Your task to perform on an android device: Is it going to rain today? Image 0: 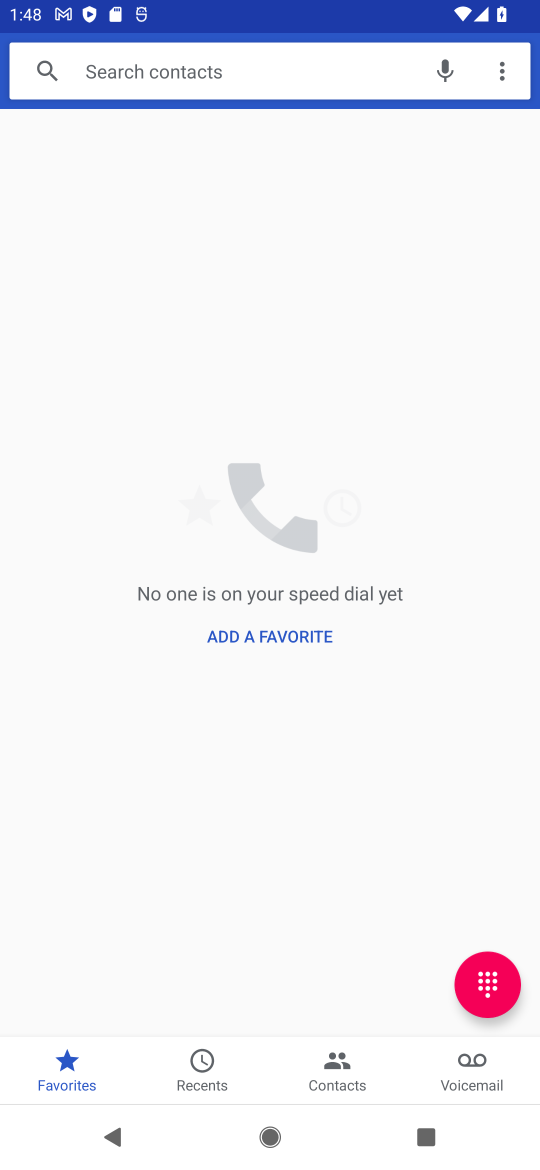
Step 0: press home button
Your task to perform on an android device: Is it going to rain today? Image 1: 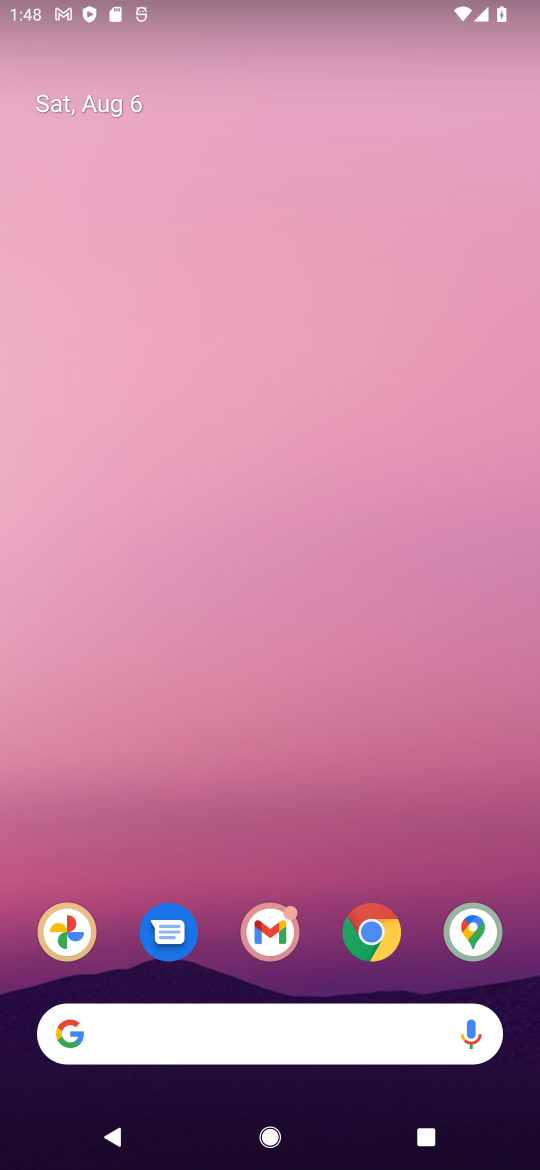
Step 1: drag from (328, 943) to (292, 2)
Your task to perform on an android device: Is it going to rain today? Image 2: 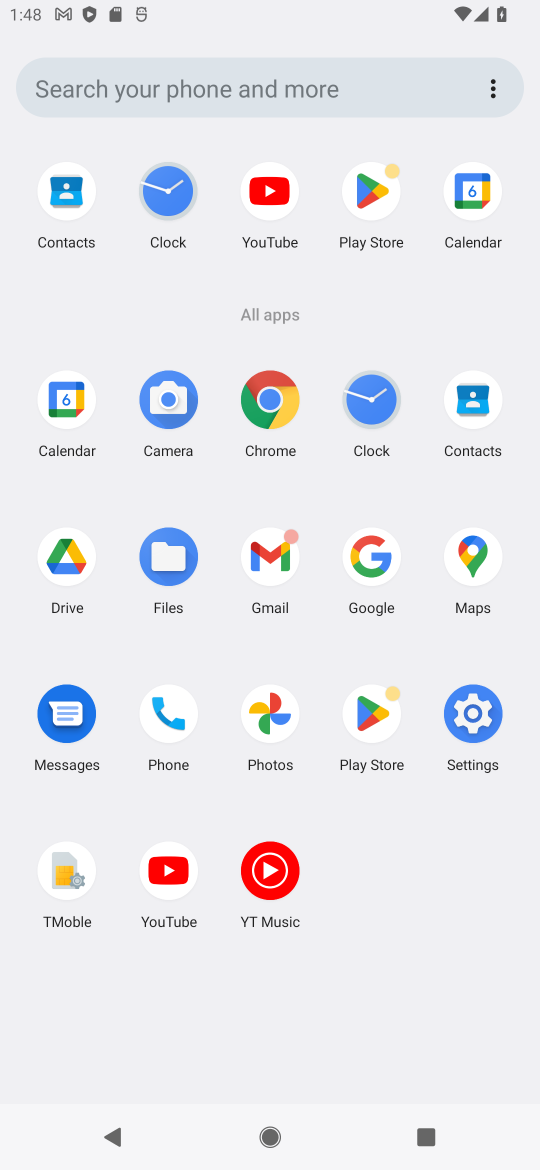
Step 2: click (273, 388)
Your task to perform on an android device: Is it going to rain today? Image 3: 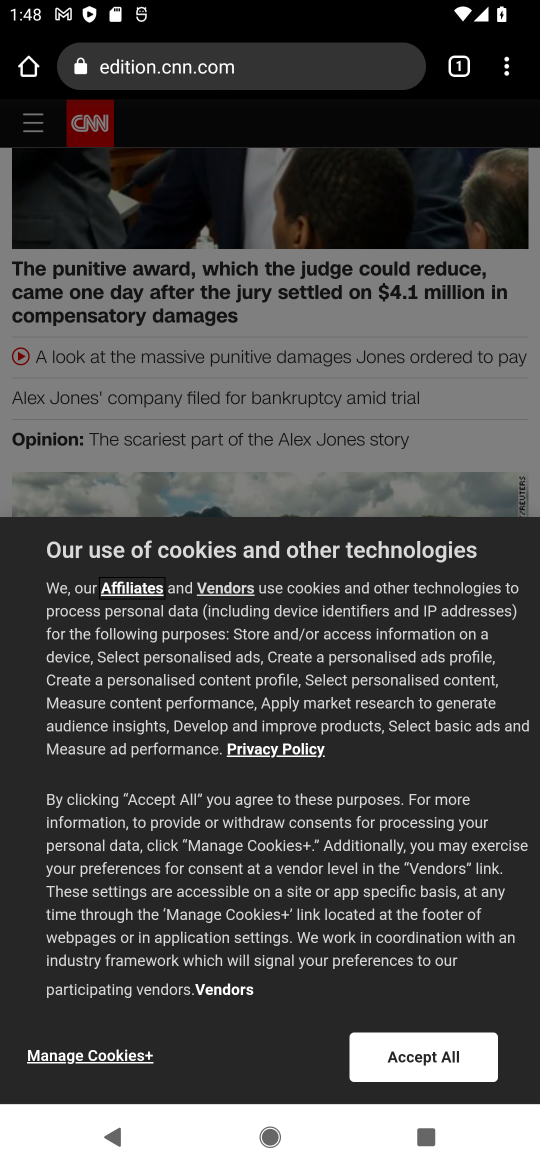
Step 3: click (231, 62)
Your task to perform on an android device: Is it going to rain today? Image 4: 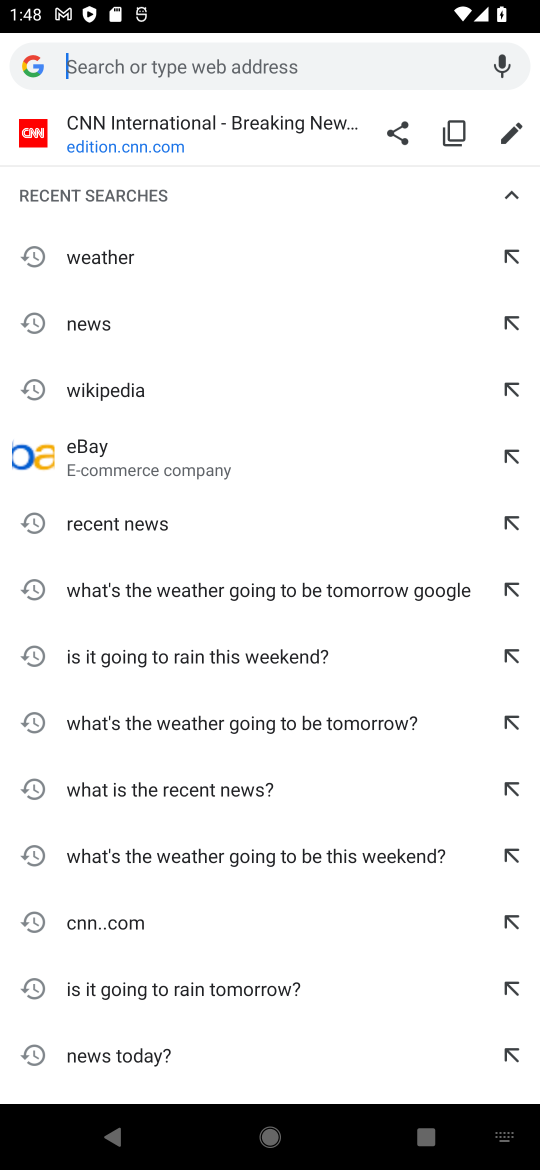
Step 4: type "Is it going to rain today?"
Your task to perform on an android device: Is it going to rain today? Image 5: 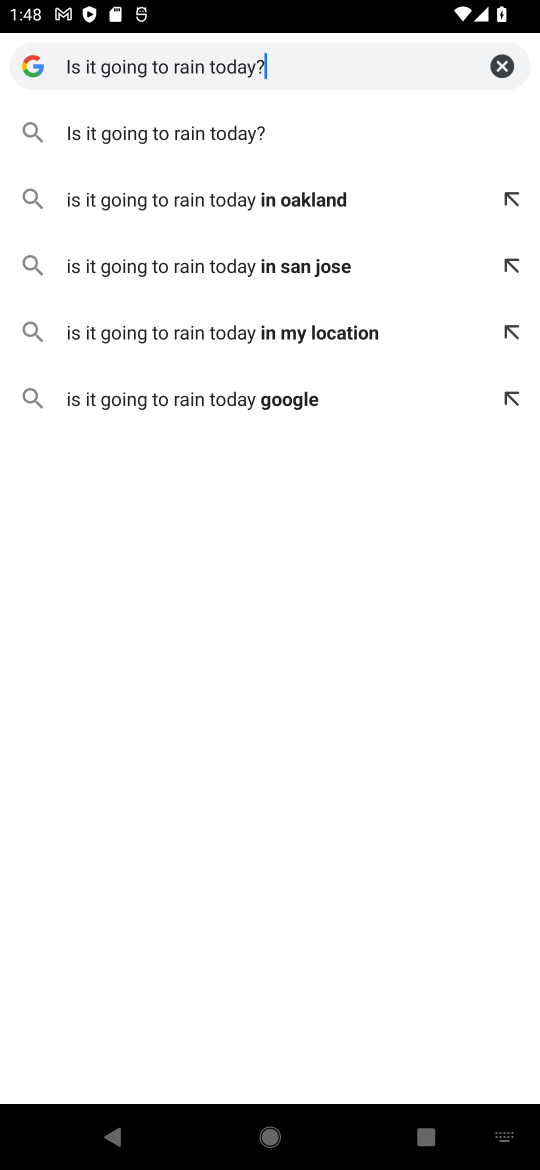
Step 5: click (126, 123)
Your task to perform on an android device: Is it going to rain today? Image 6: 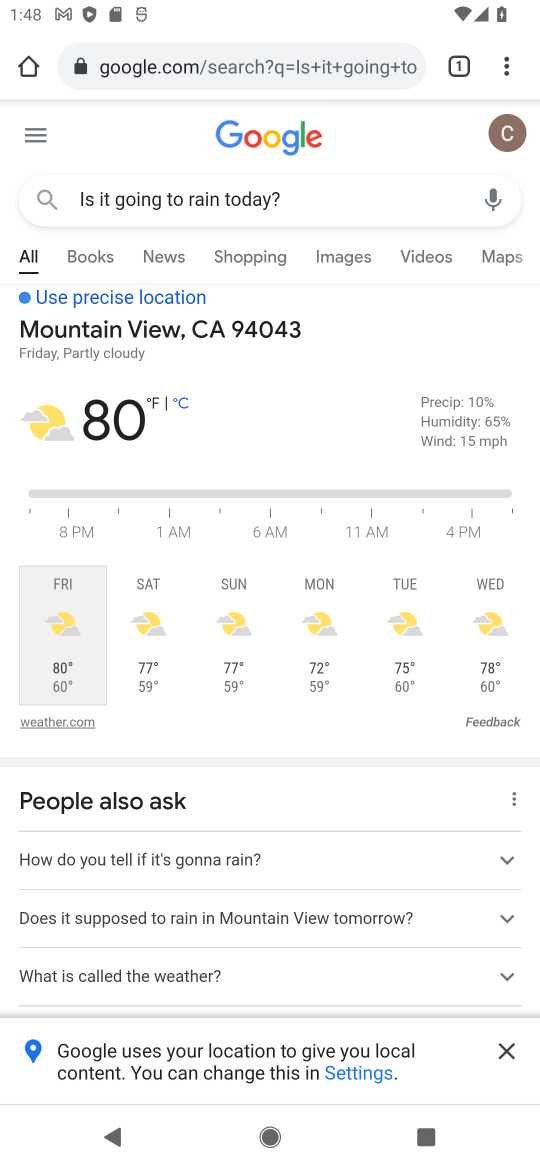
Step 6: task complete